Your task to perform on an android device: change keyboard looks Image 0: 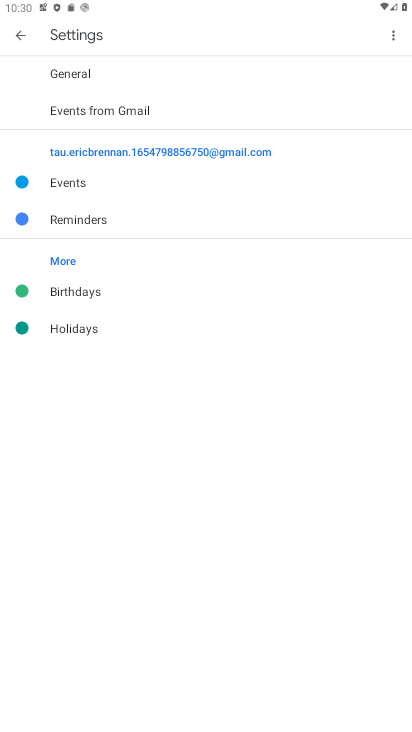
Step 0: drag from (226, 631) to (191, 276)
Your task to perform on an android device: change keyboard looks Image 1: 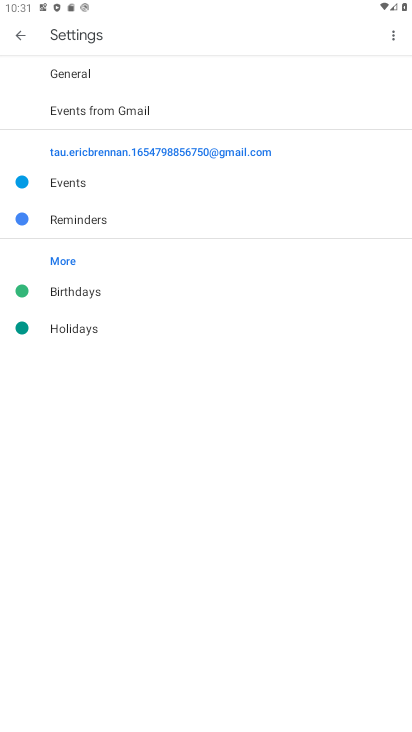
Step 1: click (27, 35)
Your task to perform on an android device: change keyboard looks Image 2: 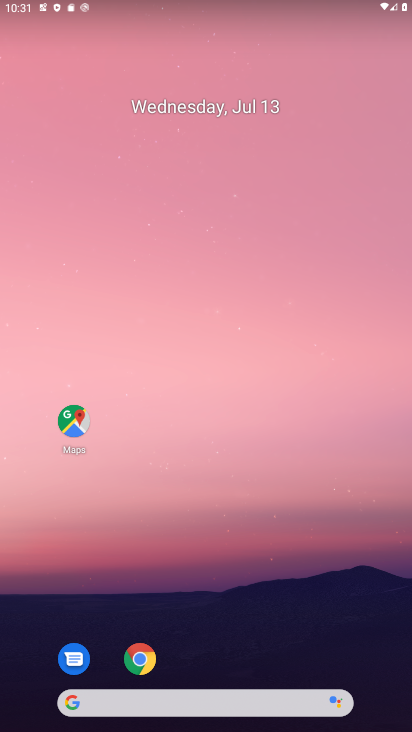
Step 2: drag from (225, 705) to (172, 278)
Your task to perform on an android device: change keyboard looks Image 3: 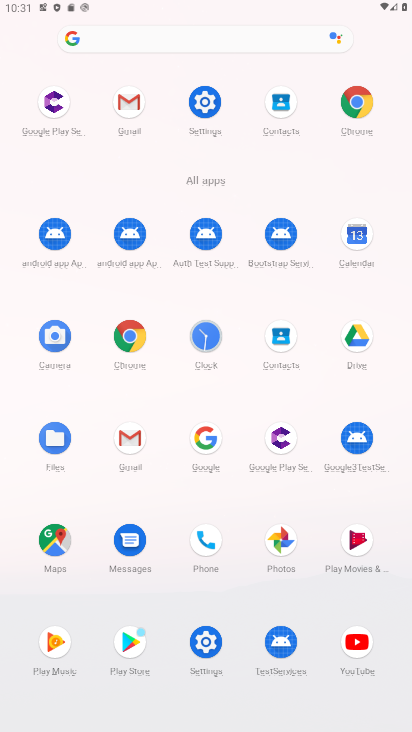
Step 3: click (210, 635)
Your task to perform on an android device: change keyboard looks Image 4: 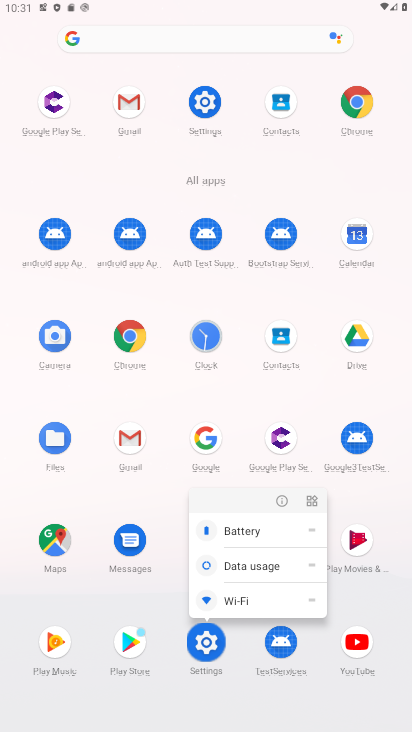
Step 4: click (210, 637)
Your task to perform on an android device: change keyboard looks Image 5: 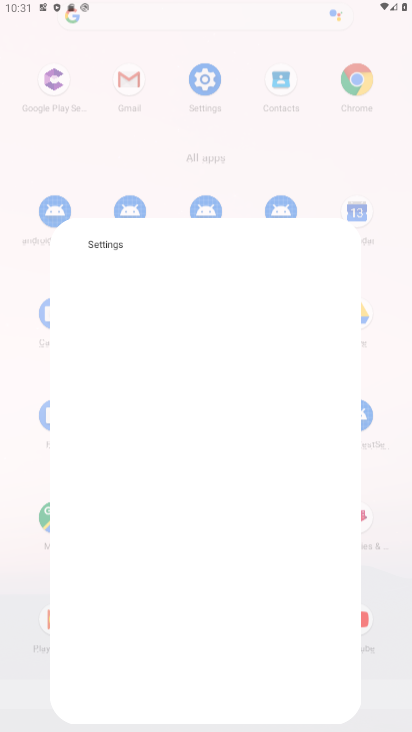
Step 5: click (215, 635)
Your task to perform on an android device: change keyboard looks Image 6: 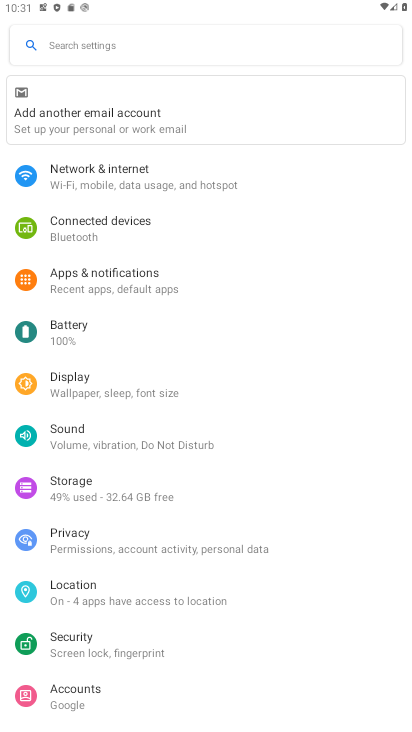
Step 6: drag from (115, 638) to (106, 265)
Your task to perform on an android device: change keyboard looks Image 7: 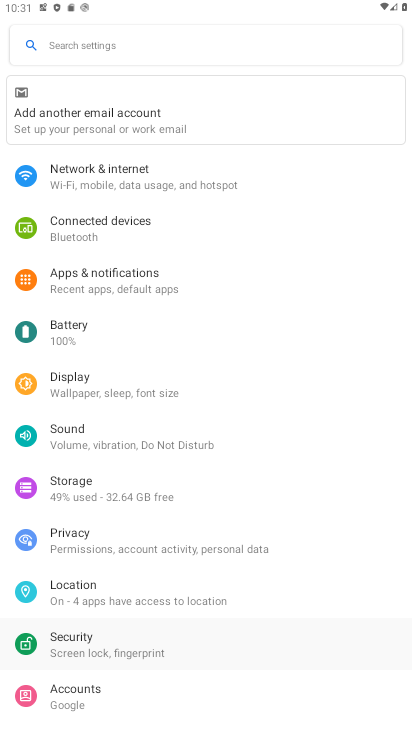
Step 7: drag from (145, 527) to (145, 239)
Your task to perform on an android device: change keyboard looks Image 8: 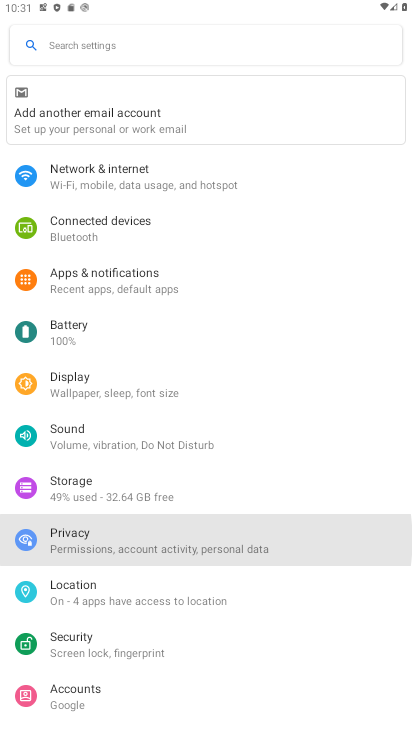
Step 8: drag from (198, 511) to (199, 362)
Your task to perform on an android device: change keyboard looks Image 9: 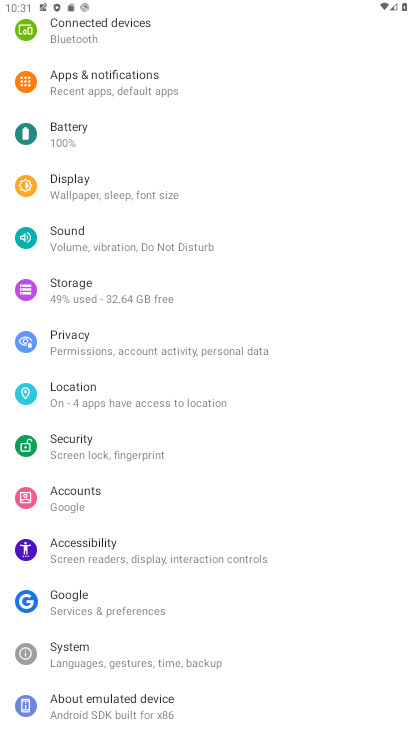
Step 9: click (76, 645)
Your task to perform on an android device: change keyboard looks Image 10: 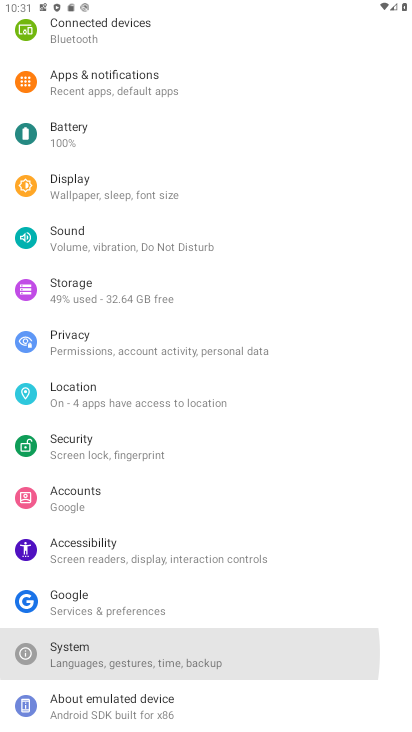
Step 10: click (79, 656)
Your task to perform on an android device: change keyboard looks Image 11: 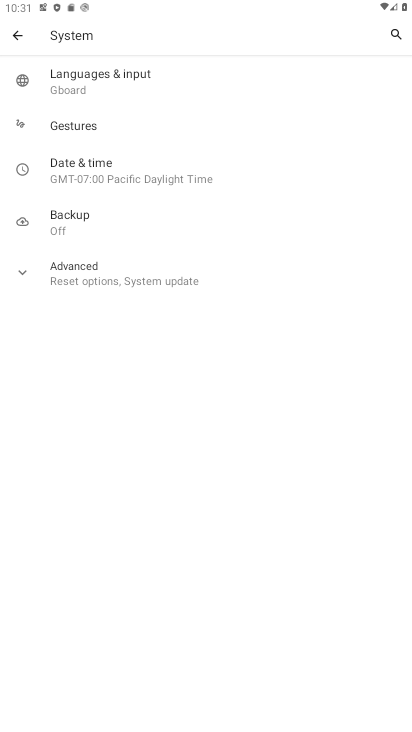
Step 11: click (89, 88)
Your task to perform on an android device: change keyboard looks Image 12: 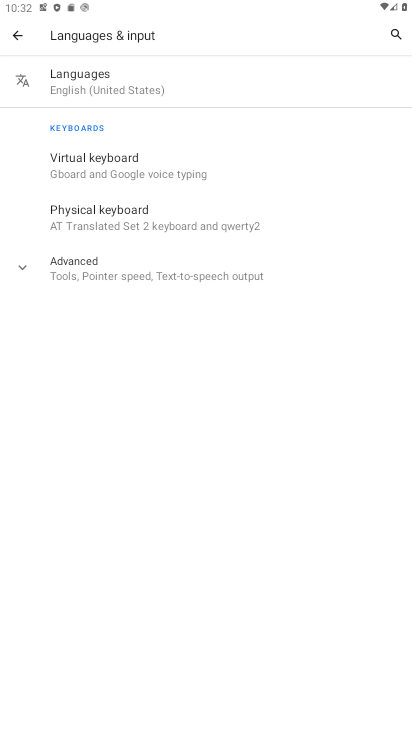
Step 12: click (99, 87)
Your task to perform on an android device: change keyboard looks Image 13: 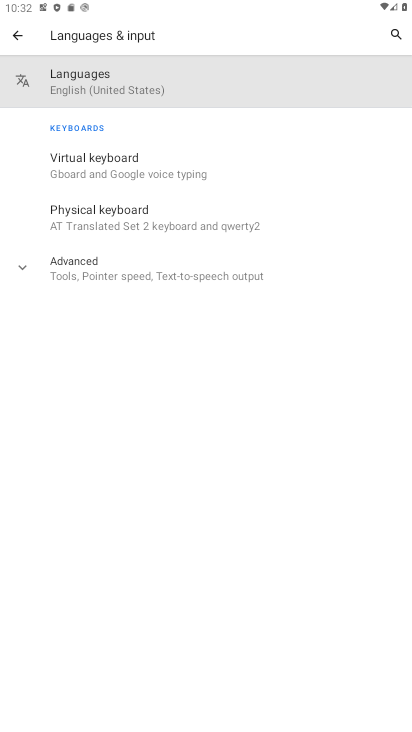
Step 13: click (108, 91)
Your task to perform on an android device: change keyboard looks Image 14: 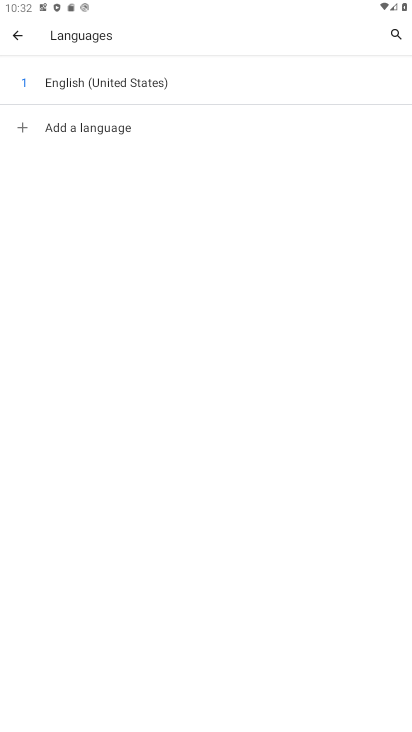
Step 14: click (117, 88)
Your task to perform on an android device: change keyboard looks Image 15: 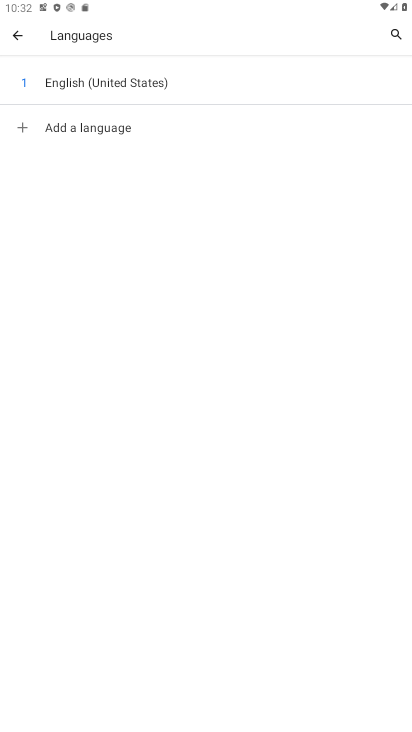
Step 15: click (120, 86)
Your task to perform on an android device: change keyboard looks Image 16: 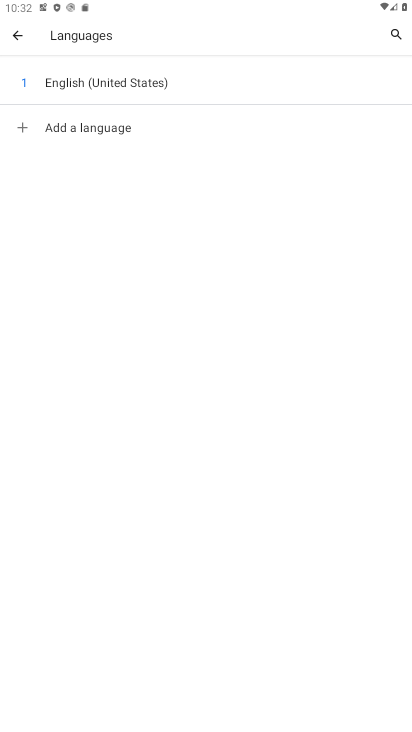
Step 16: click (120, 86)
Your task to perform on an android device: change keyboard looks Image 17: 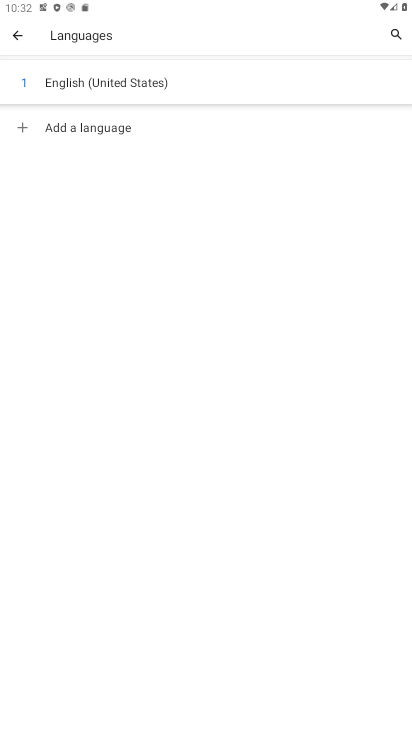
Step 17: click (120, 86)
Your task to perform on an android device: change keyboard looks Image 18: 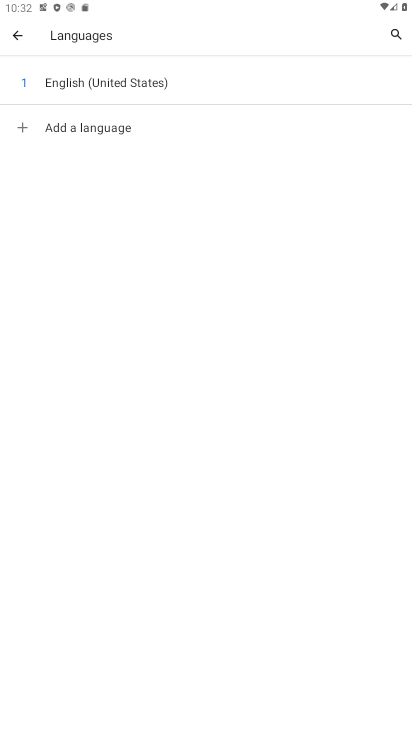
Step 18: click (125, 80)
Your task to perform on an android device: change keyboard looks Image 19: 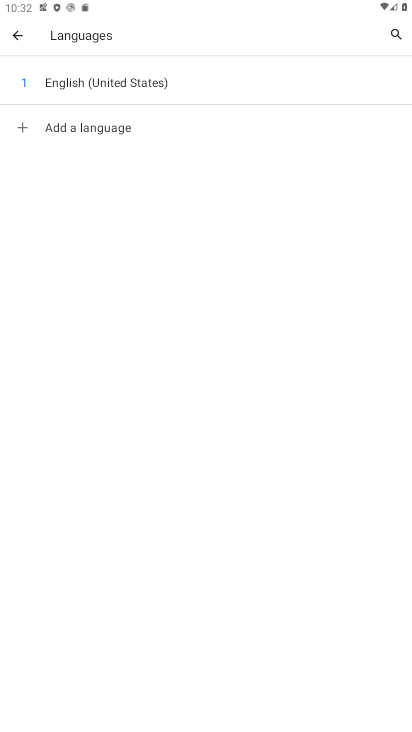
Step 19: click (125, 80)
Your task to perform on an android device: change keyboard looks Image 20: 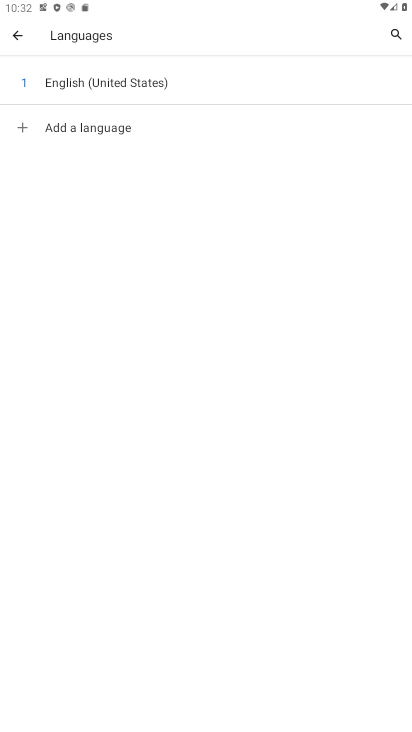
Step 20: click (131, 76)
Your task to perform on an android device: change keyboard looks Image 21: 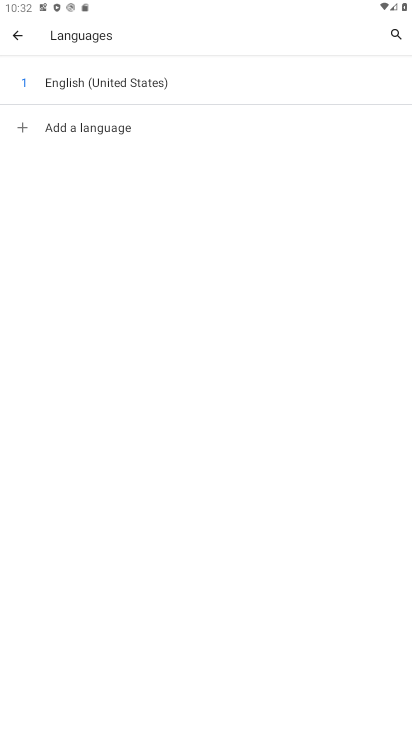
Step 21: click (141, 79)
Your task to perform on an android device: change keyboard looks Image 22: 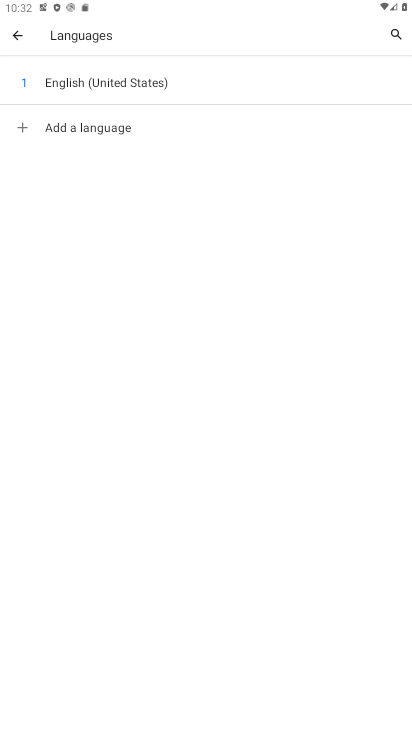
Step 22: click (149, 77)
Your task to perform on an android device: change keyboard looks Image 23: 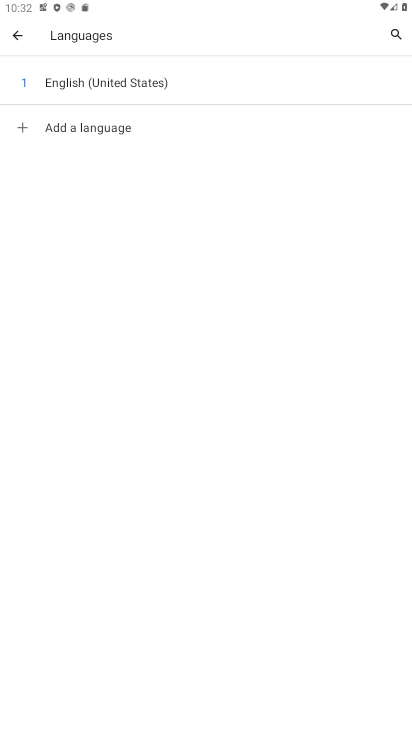
Step 23: click (154, 75)
Your task to perform on an android device: change keyboard looks Image 24: 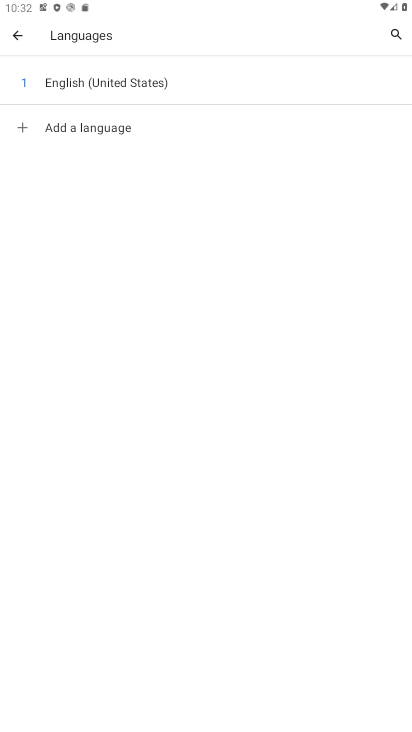
Step 24: click (161, 80)
Your task to perform on an android device: change keyboard looks Image 25: 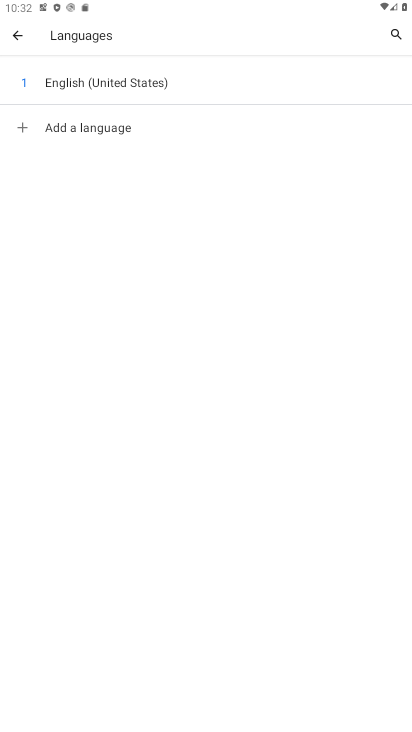
Step 25: click (95, 127)
Your task to perform on an android device: change keyboard looks Image 26: 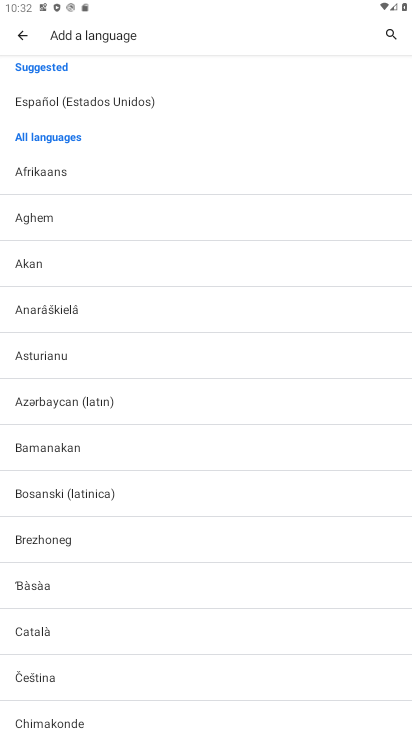
Step 26: click (19, 36)
Your task to perform on an android device: change keyboard looks Image 27: 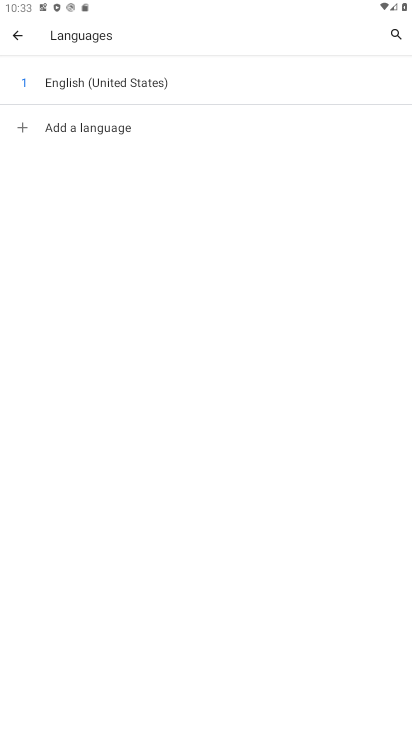
Step 27: click (14, 31)
Your task to perform on an android device: change keyboard looks Image 28: 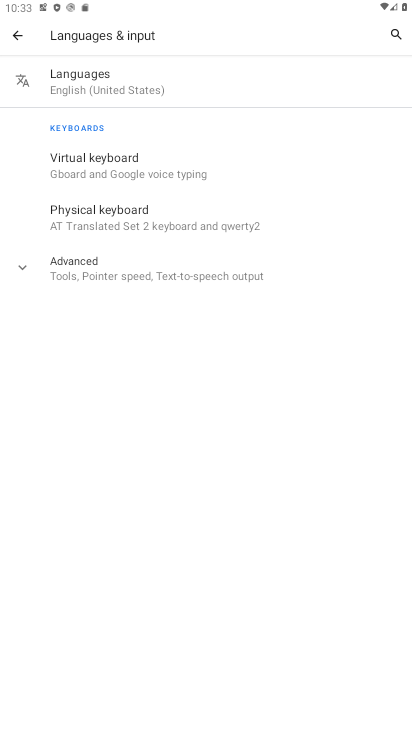
Step 28: click (91, 171)
Your task to perform on an android device: change keyboard looks Image 29: 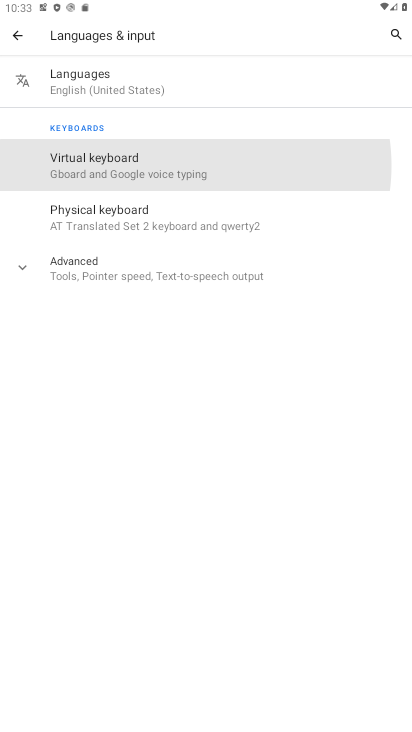
Step 29: click (95, 170)
Your task to perform on an android device: change keyboard looks Image 30: 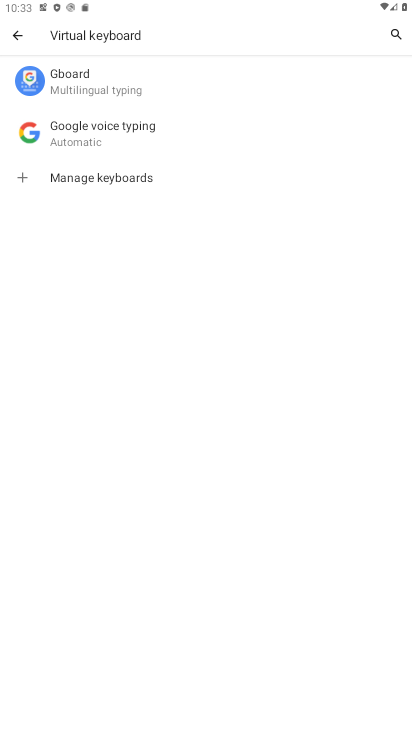
Step 30: click (65, 83)
Your task to perform on an android device: change keyboard looks Image 31: 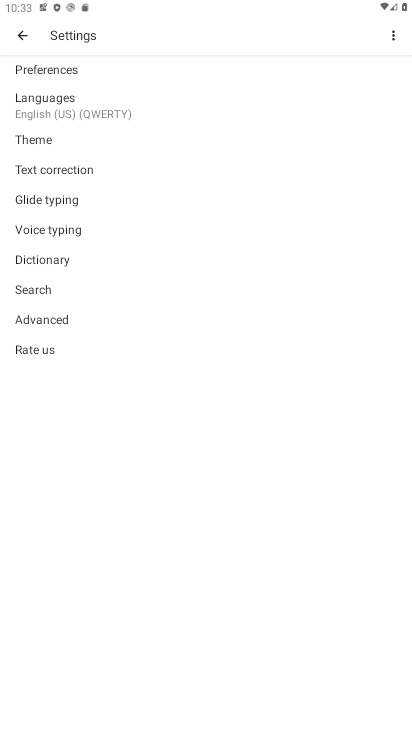
Step 31: click (29, 139)
Your task to perform on an android device: change keyboard looks Image 32: 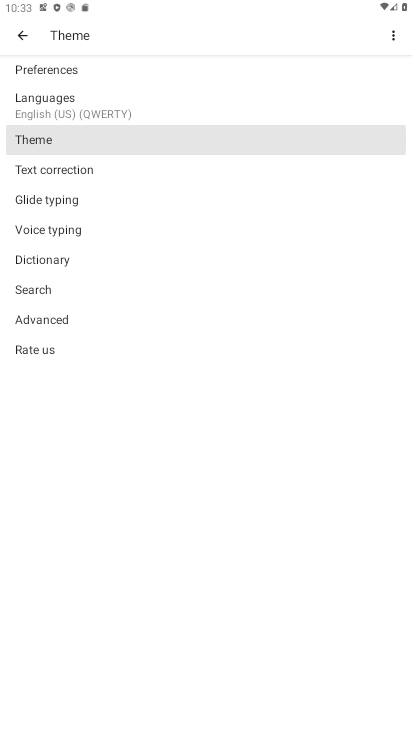
Step 32: click (32, 142)
Your task to perform on an android device: change keyboard looks Image 33: 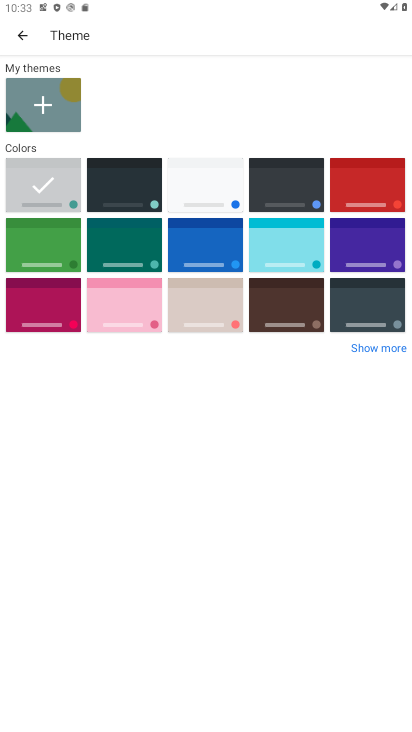
Step 33: task complete